Your task to perform on an android device: Is it going to rain today? Image 0: 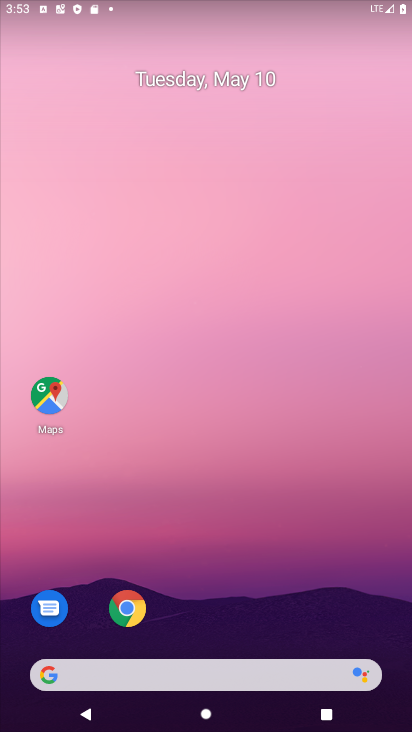
Step 0: drag from (0, 181) to (364, 222)
Your task to perform on an android device: Is it going to rain today? Image 1: 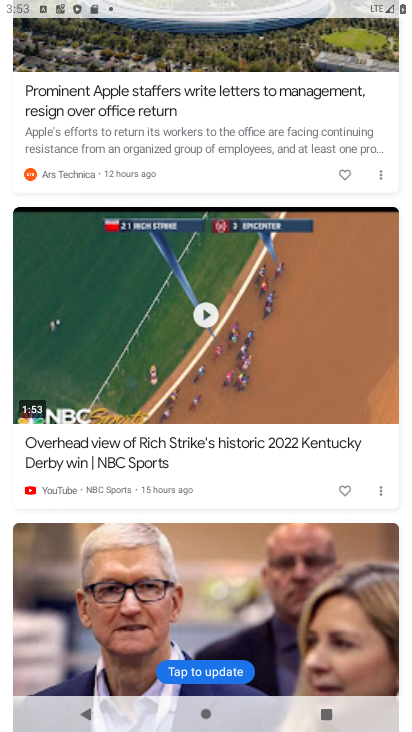
Step 1: drag from (236, 183) to (233, 513)
Your task to perform on an android device: Is it going to rain today? Image 2: 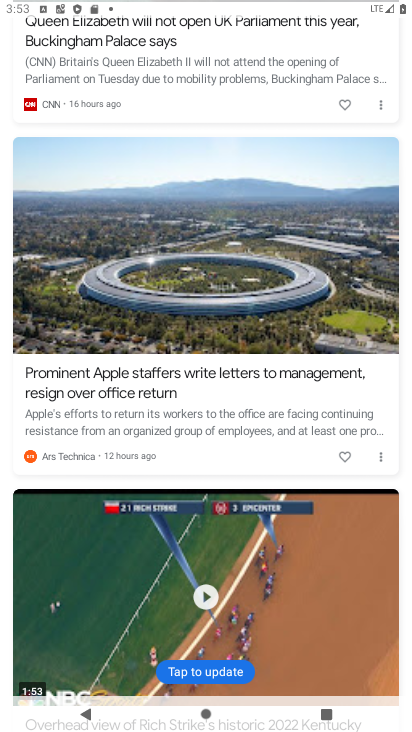
Step 2: drag from (239, 106) to (255, 478)
Your task to perform on an android device: Is it going to rain today? Image 3: 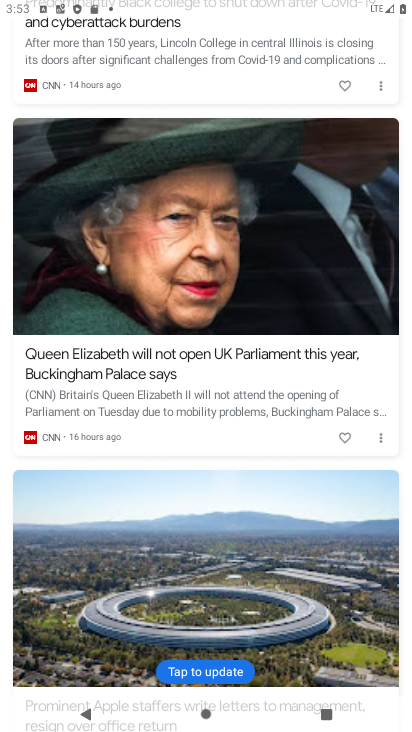
Step 3: drag from (275, 66) to (301, 546)
Your task to perform on an android device: Is it going to rain today? Image 4: 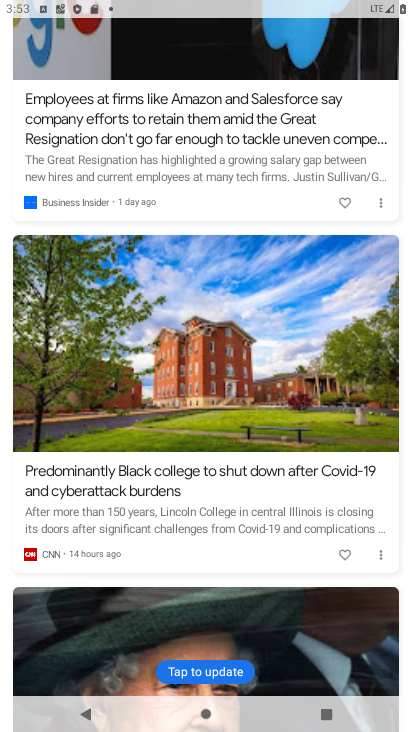
Step 4: drag from (260, 110) to (311, 603)
Your task to perform on an android device: Is it going to rain today? Image 5: 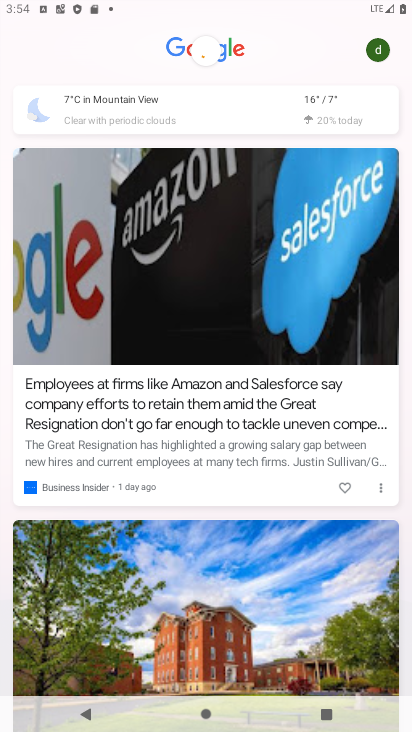
Step 5: click (309, 100)
Your task to perform on an android device: Is it going to rain today? Image 6: 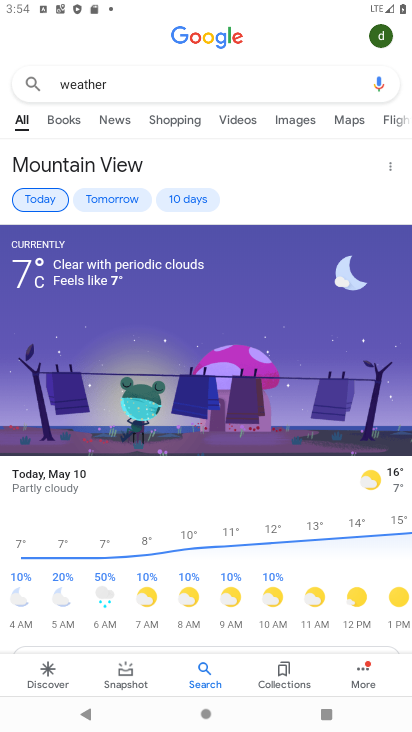
Step 6: task complete